Your task to perform on an android device: check google app version Image 0: 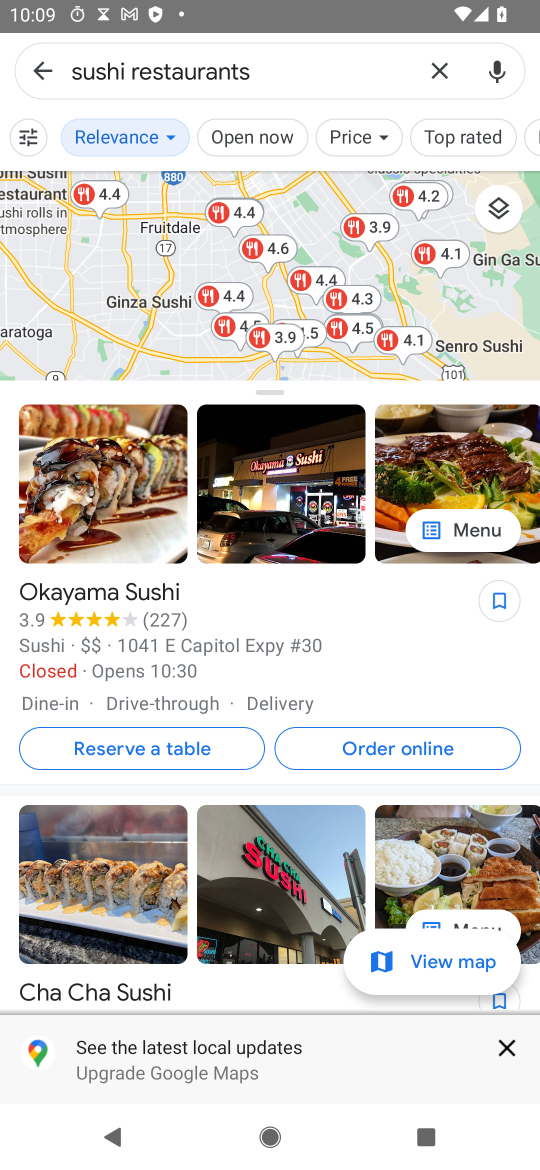
Step 0: press home button
Your task to perform on an android device: check google app version Image 1: 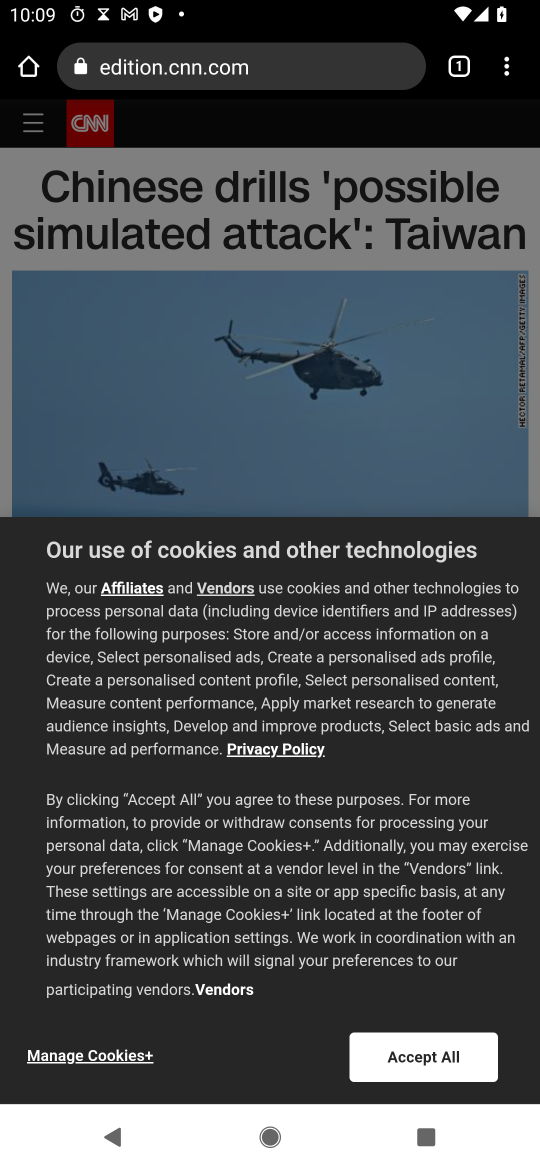
Step 1: press home button
Your task to perform on an android device: check google app version Image 2: 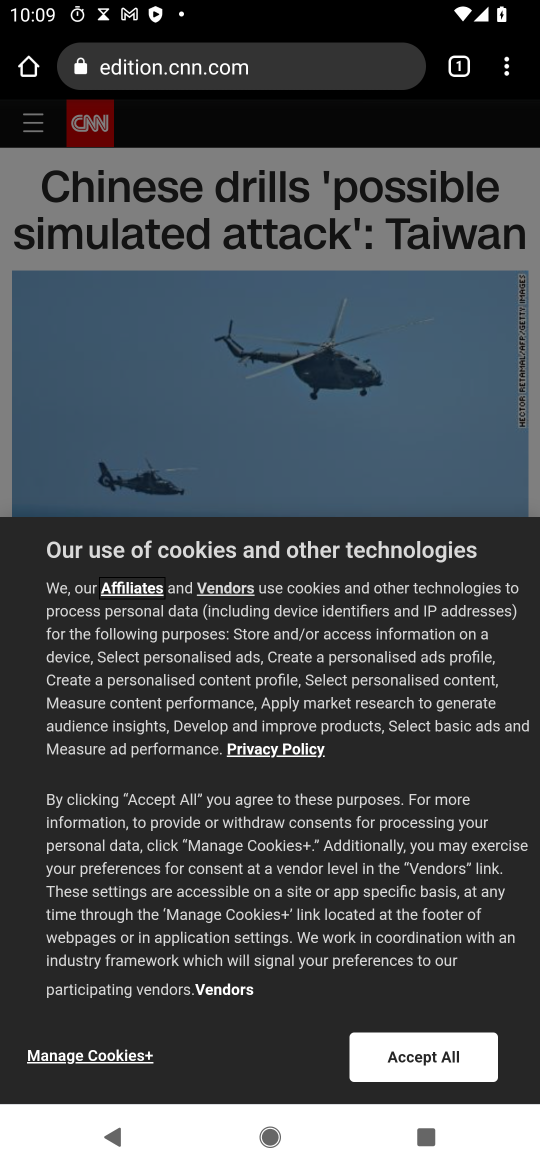
Step 2: press home button
Your task to perform on an android device: check google app version Image 3: 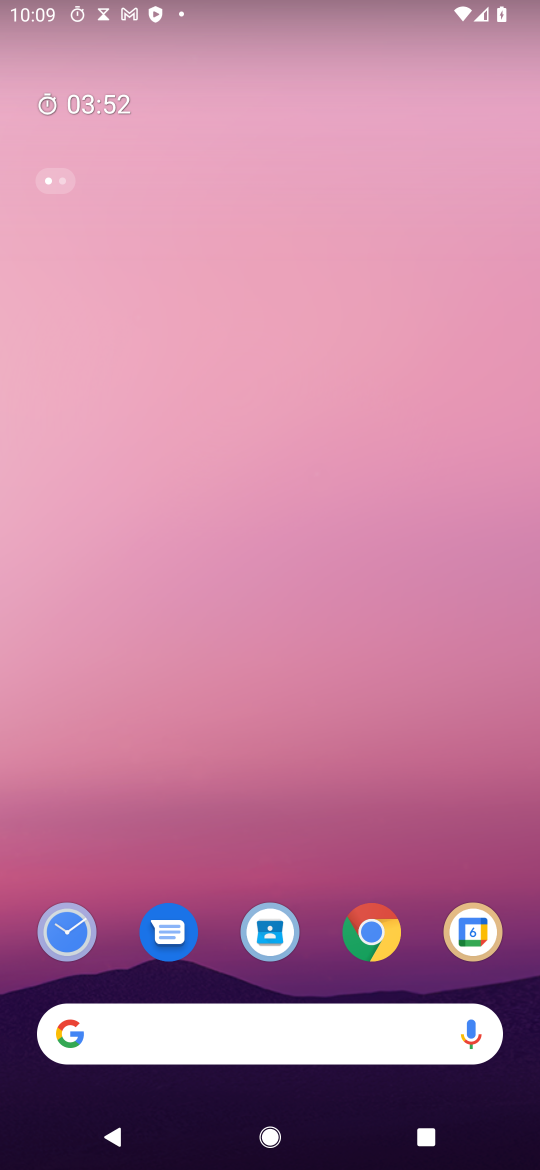
Step 3: drag from (397, 873) to (260, 21)
Your task to perform on an android device: check google app version Image 4: 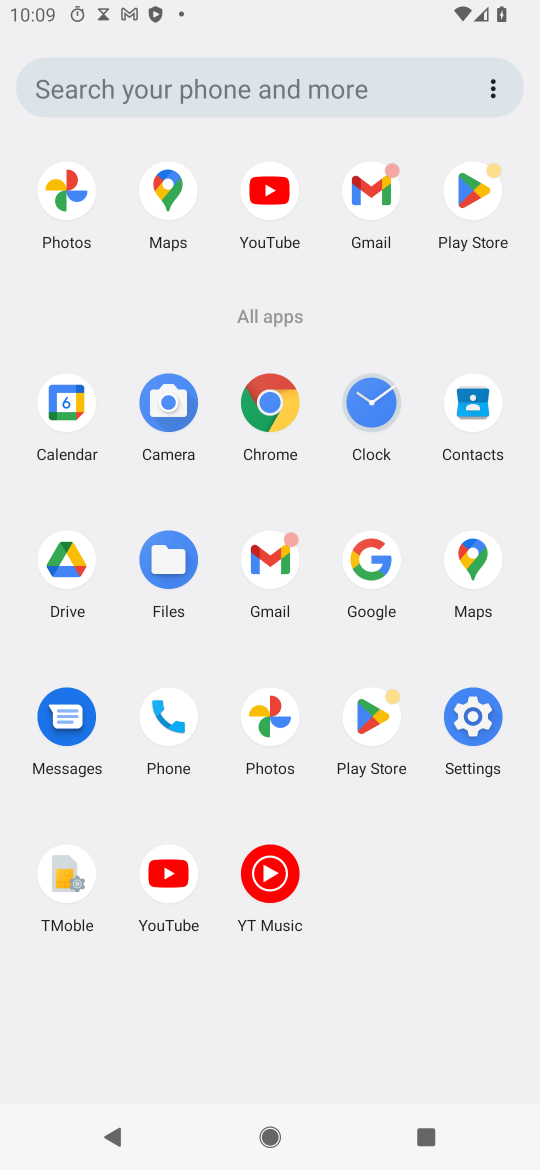
Step 4: click (271, 422)
Your task to perform on an android device: check google app version Image 5: 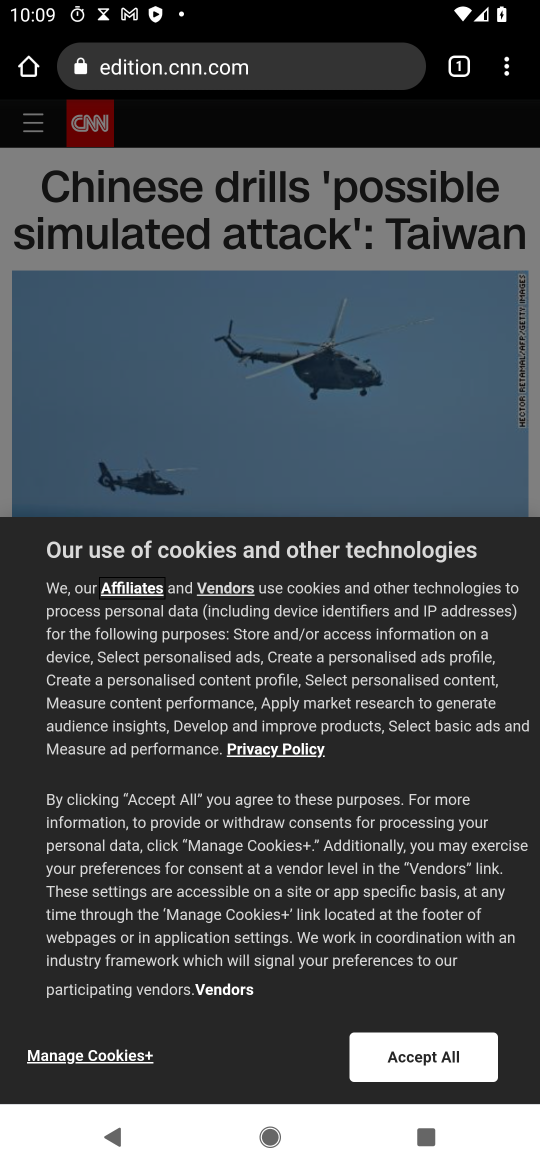
Step 5: click (500, 69)
Your task to perform on an android device: check google app version Image 6: 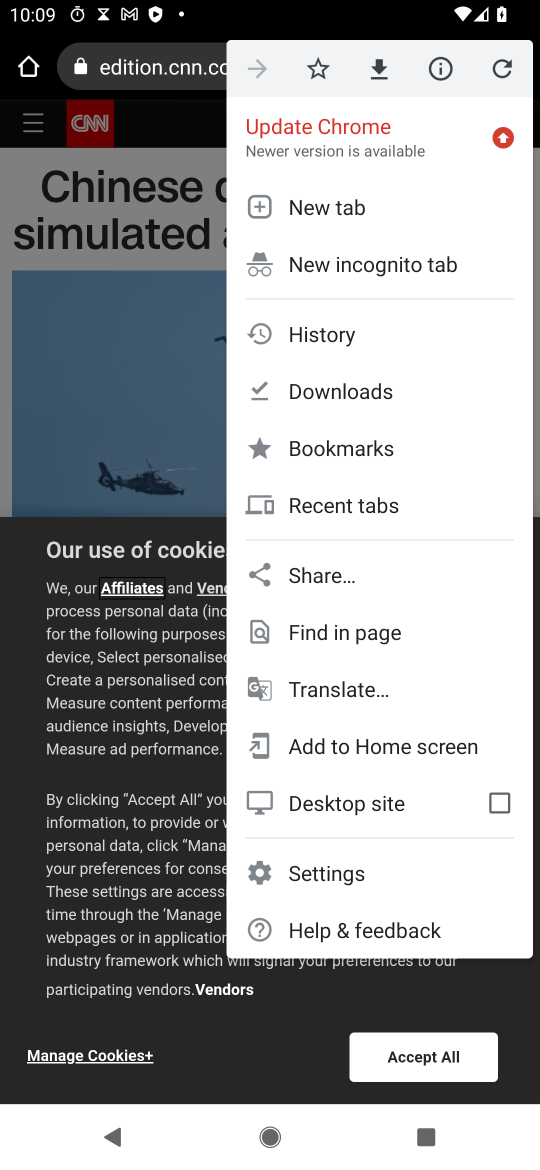
Step 6: click (380, 940)
Your task to perform on an android device: check google app version Image 7: 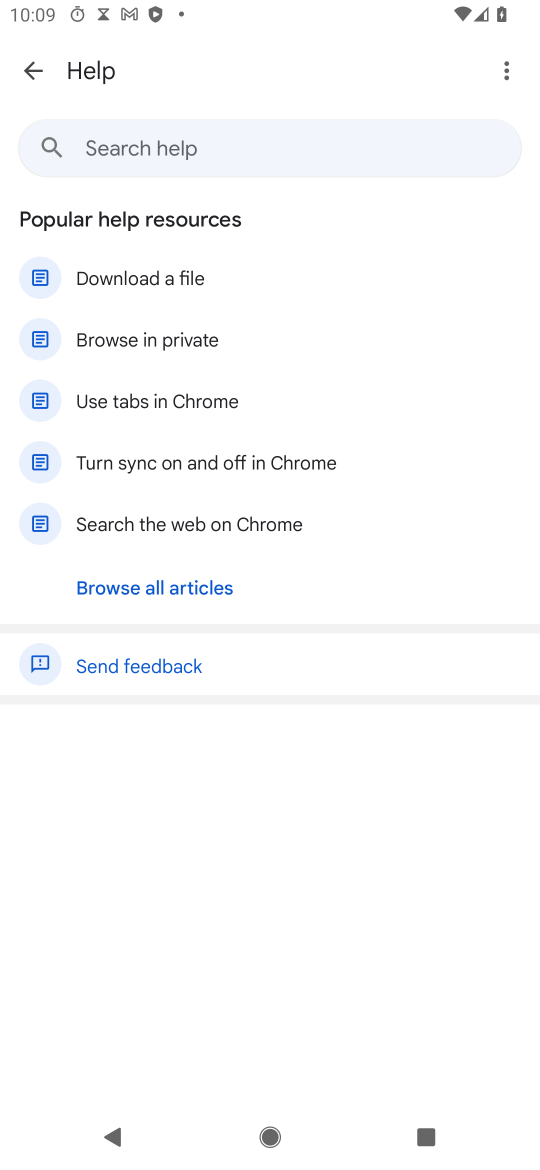
Step 7: click (504, 68)
Your task to perform on an android device: check google app version Image 8: 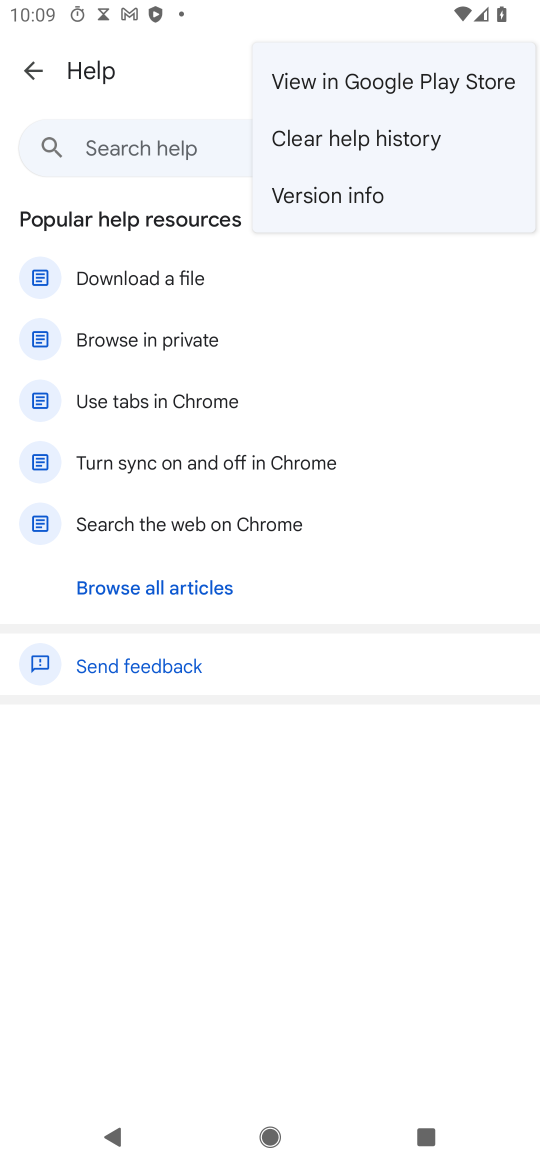
Step 8: click (402, 182)
Your task to perform on an android device: check google app version Image 9: 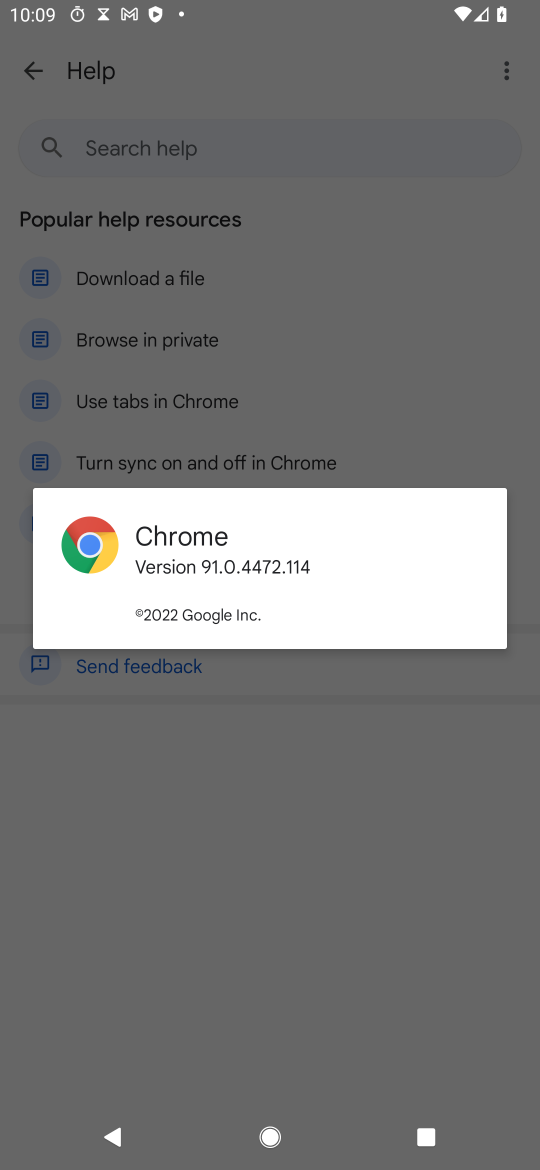
Step 9: task complete